Your task to perform on an android device: What's on the menu at Papa Murphy's? Image 0: 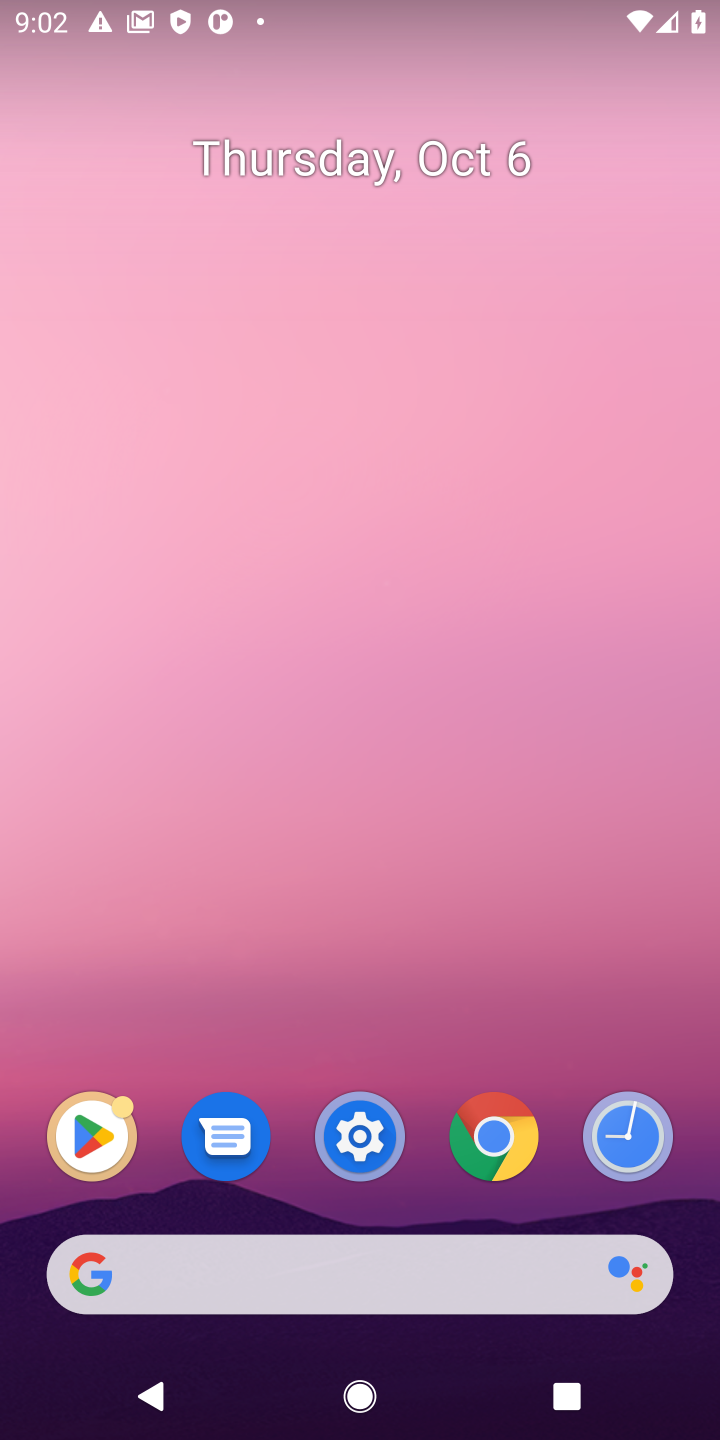
Step 0: click (80, 1259)
Your task to perform on an android device: What's on the menu at Papa Murphy's? Image 1: 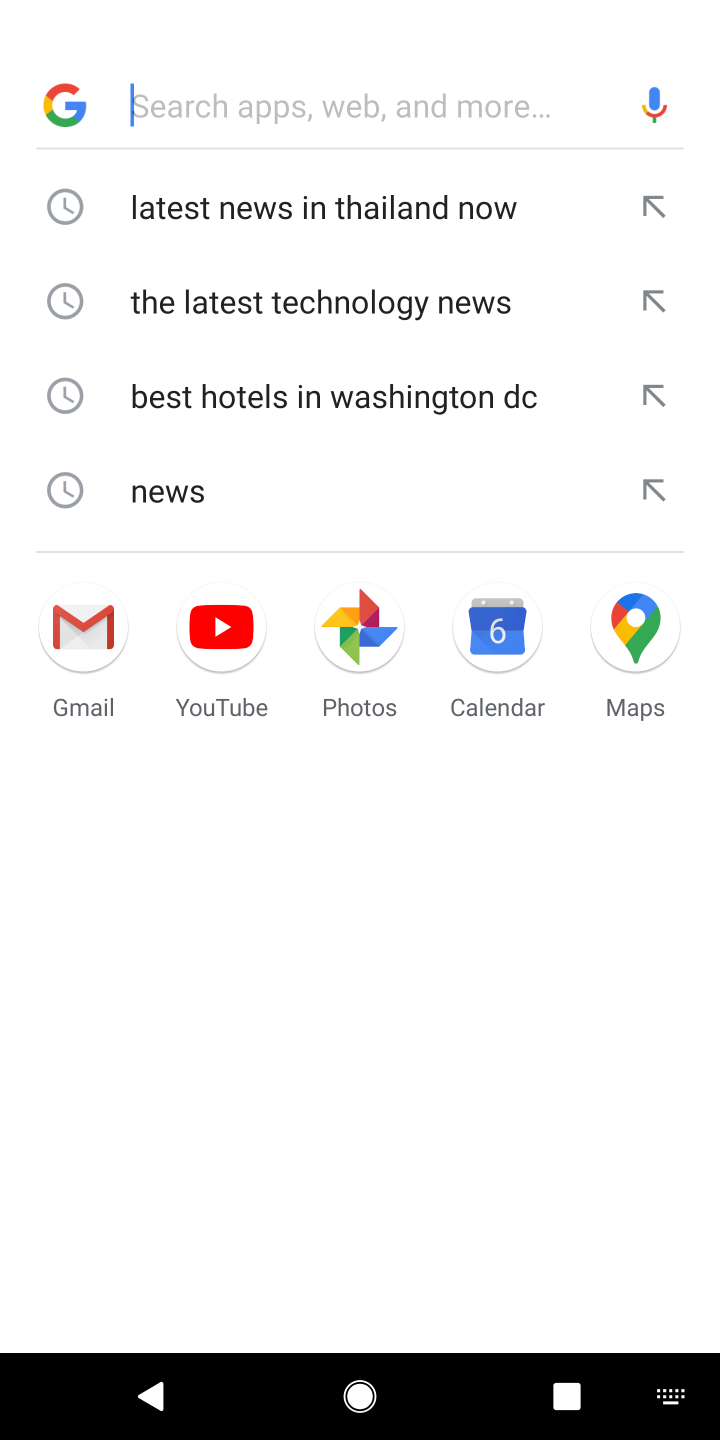
Step 1: click (294, 110)
Your task to perform on an android device: What's on the menu at Papa Murphy's? Image 2: 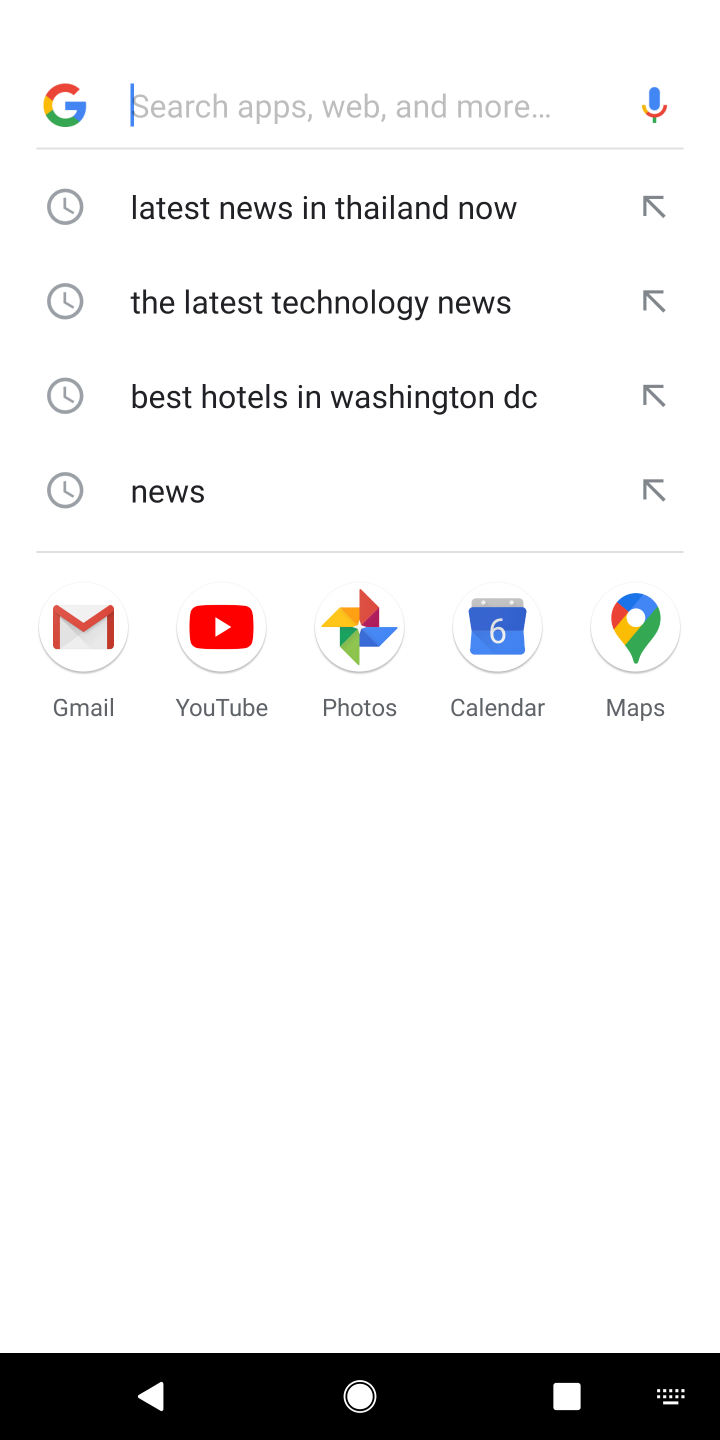
Step 2: type "What's on the menu at Papa Murphy's?"
Your task to perform on an android device: What's on the menu at Papa Murphy's? Image 3: 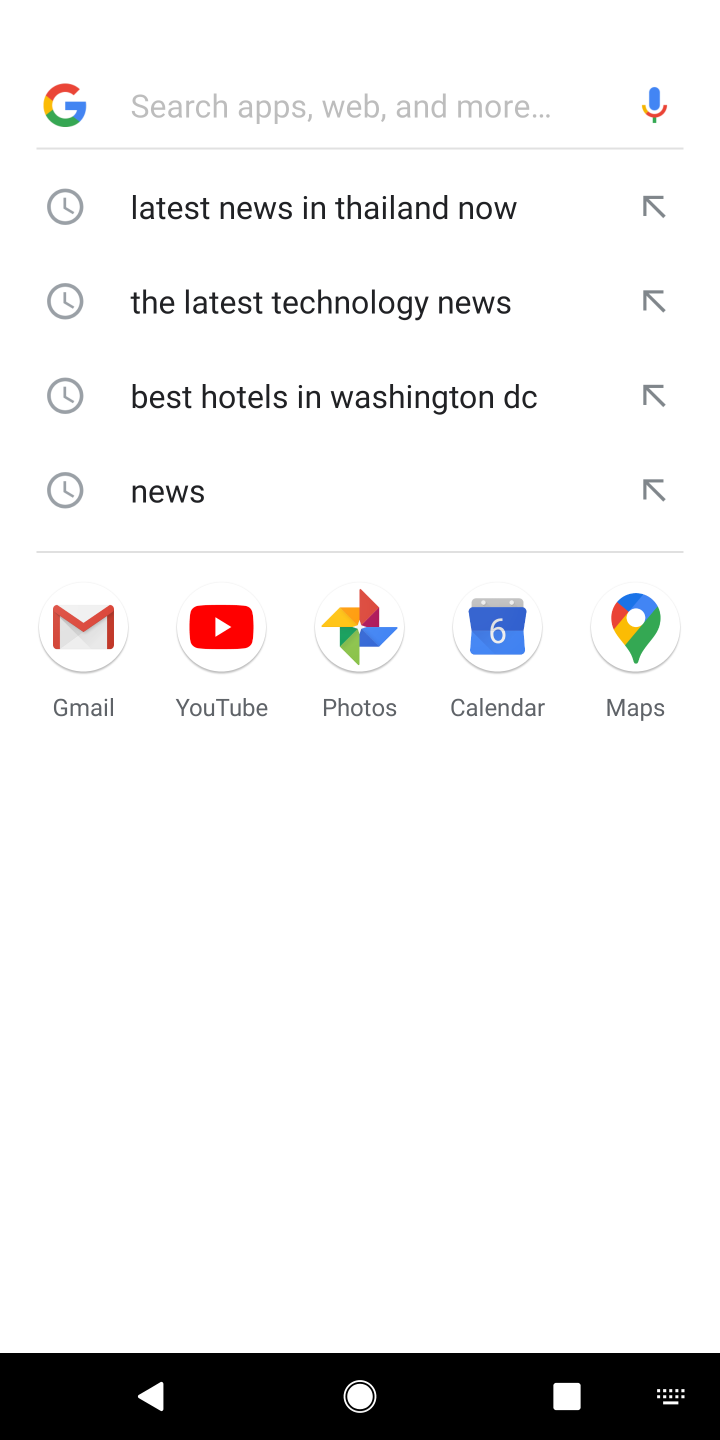
Step 3: click (419, 123)
Your task to perform on an android device: What's on the menu at Papa Murphy's? Image 4: 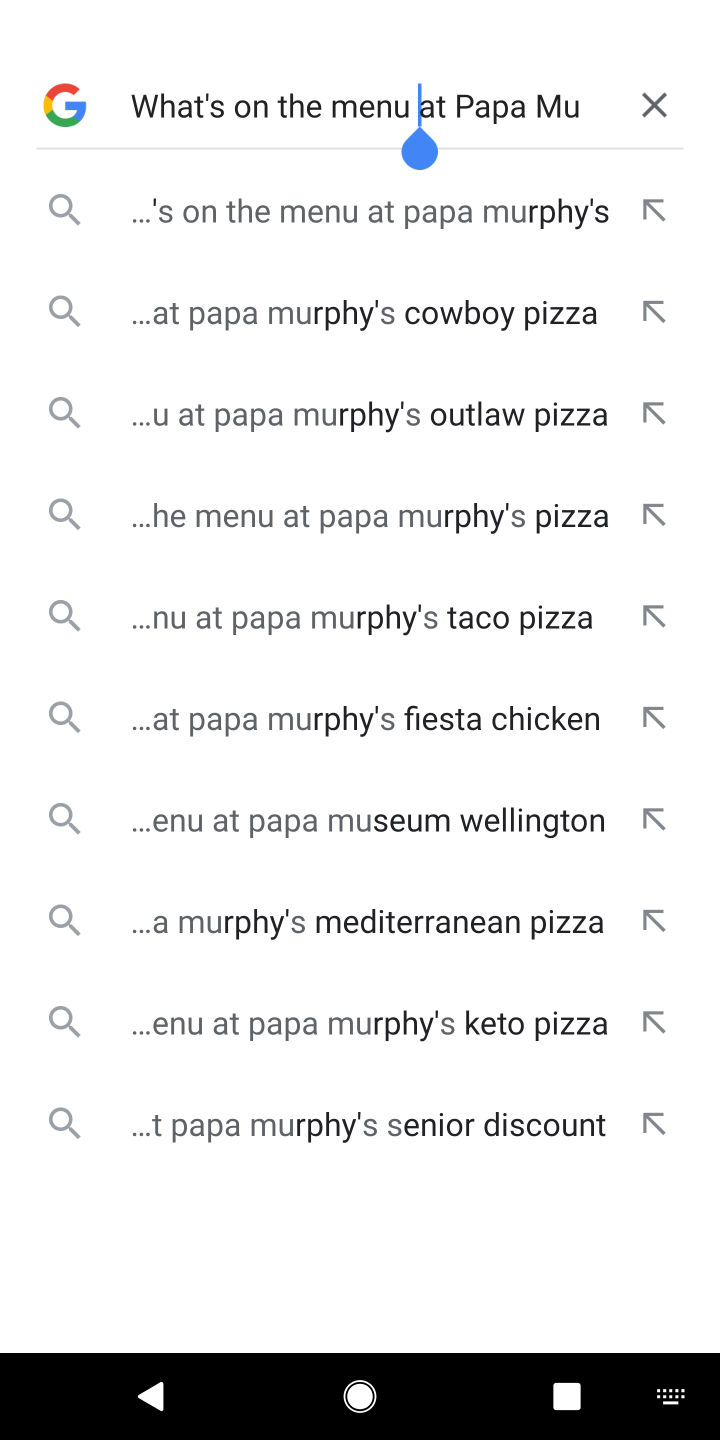
Step 4: press enter
Your task to perform on an android device: What's on the menu at Papa Murphy's? Image 5: 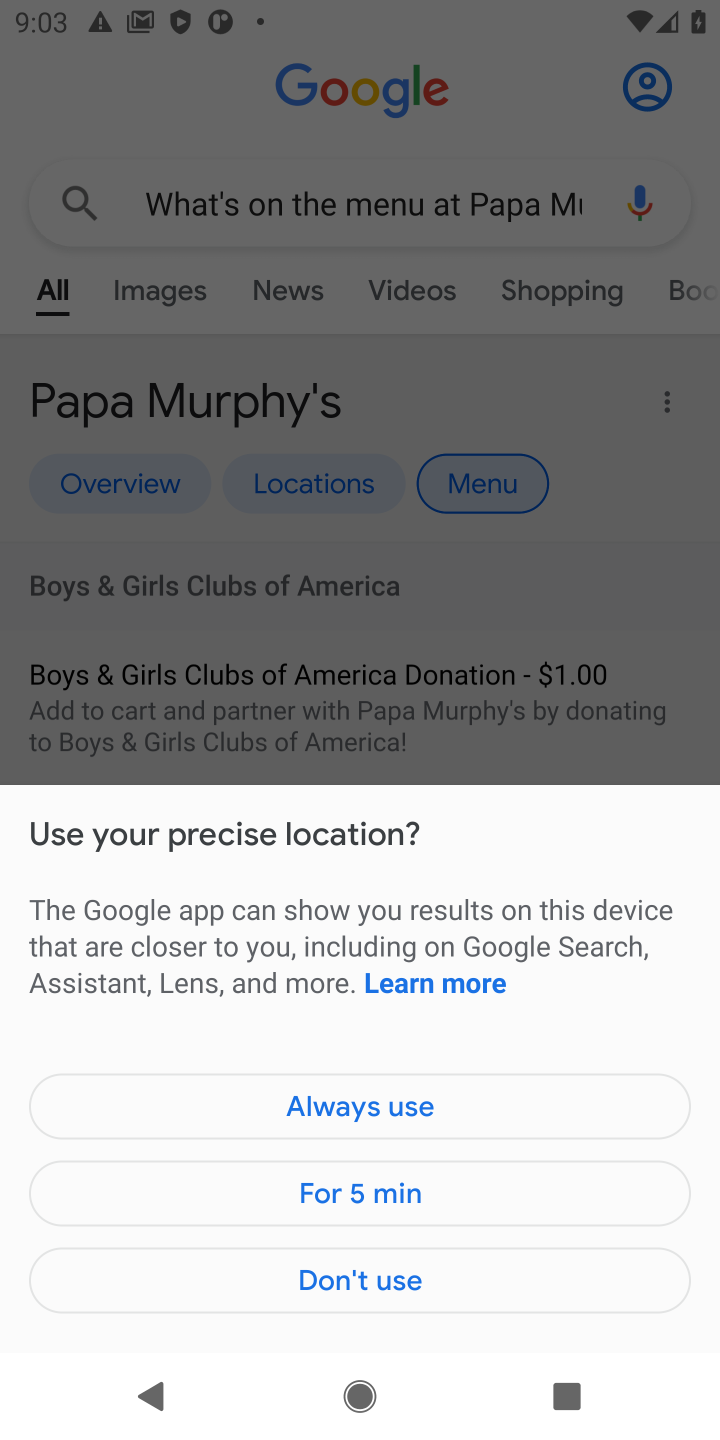
Step 5: drag from (567, 1058) to (502, 710)
Your task to perform on an android device: What's on the menu at Papa Murphy's? Image 6: 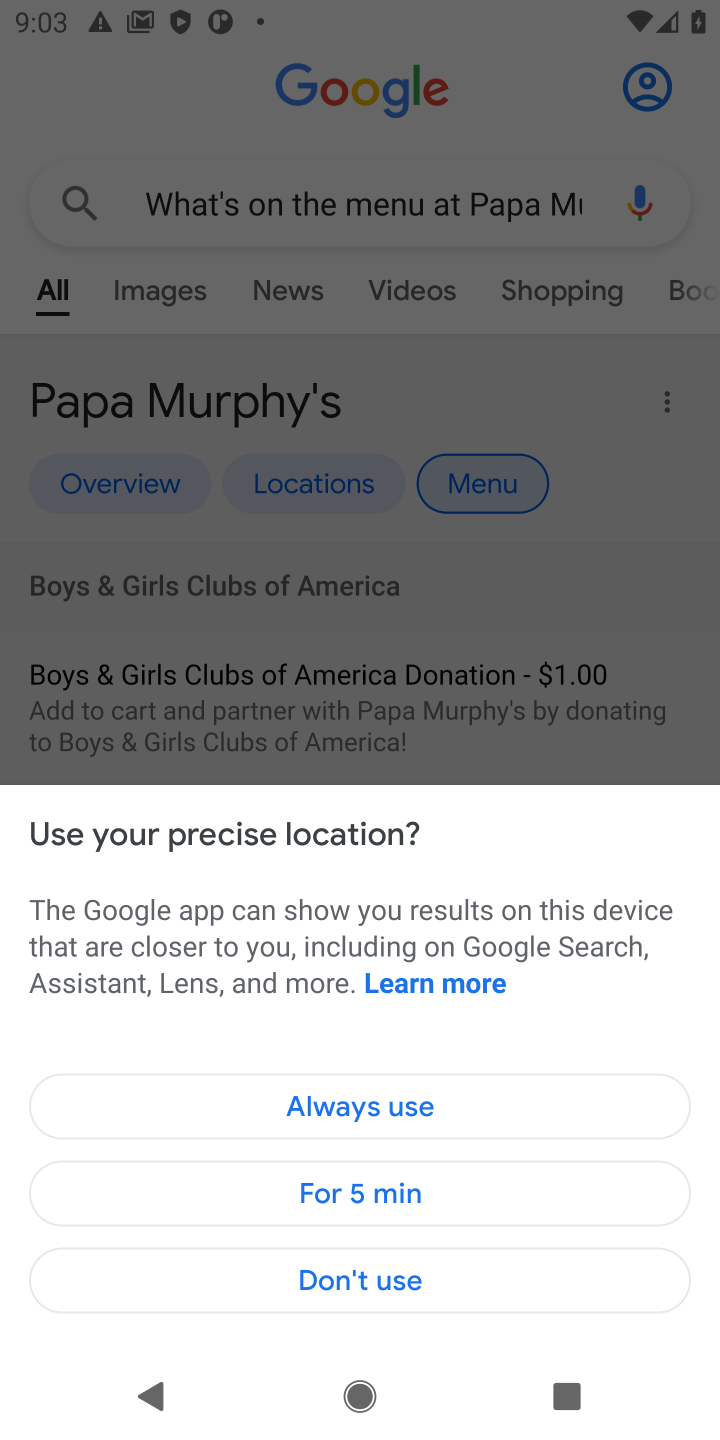
Step 6: click (621, 503)
Your task to perform on an android device: What's on the menu at Papa Murphy's? Image 7: 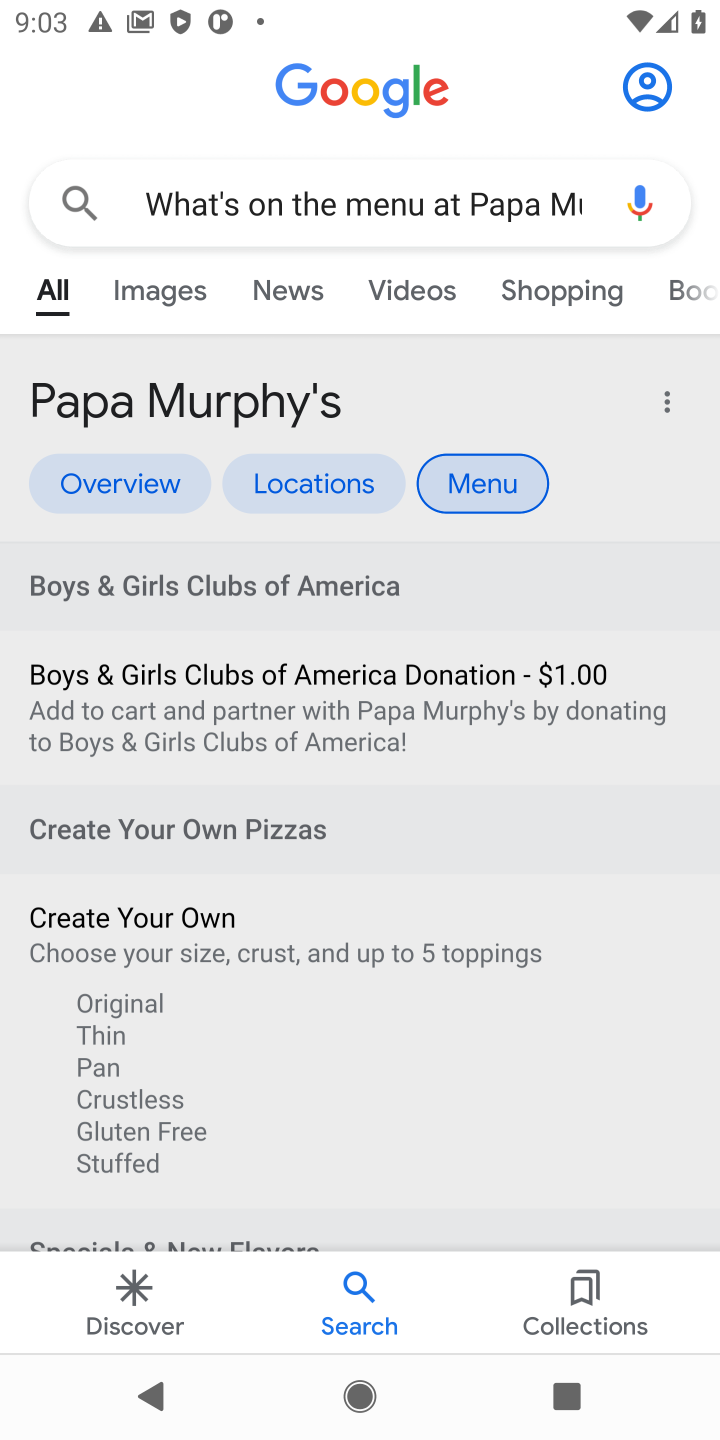
Step 7: drag from (616, 722) to (620, 163)
Your task to perform on an android device: What's on the menu at Papa Murphy's? Image 8: 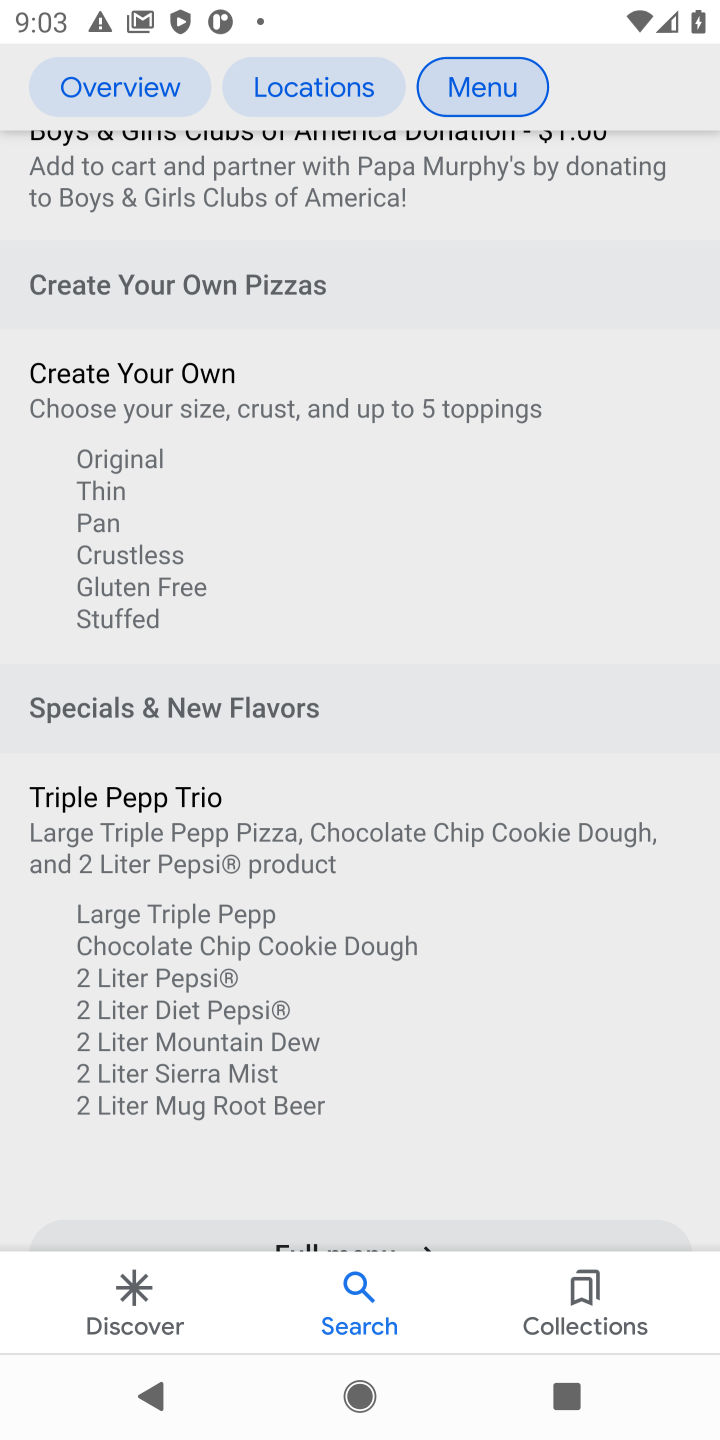
Step 8: drag from (612, 1132) to (544, 319)
Your task to perform on an android device: What's on the menu at Papa Murphy's? Image 9: 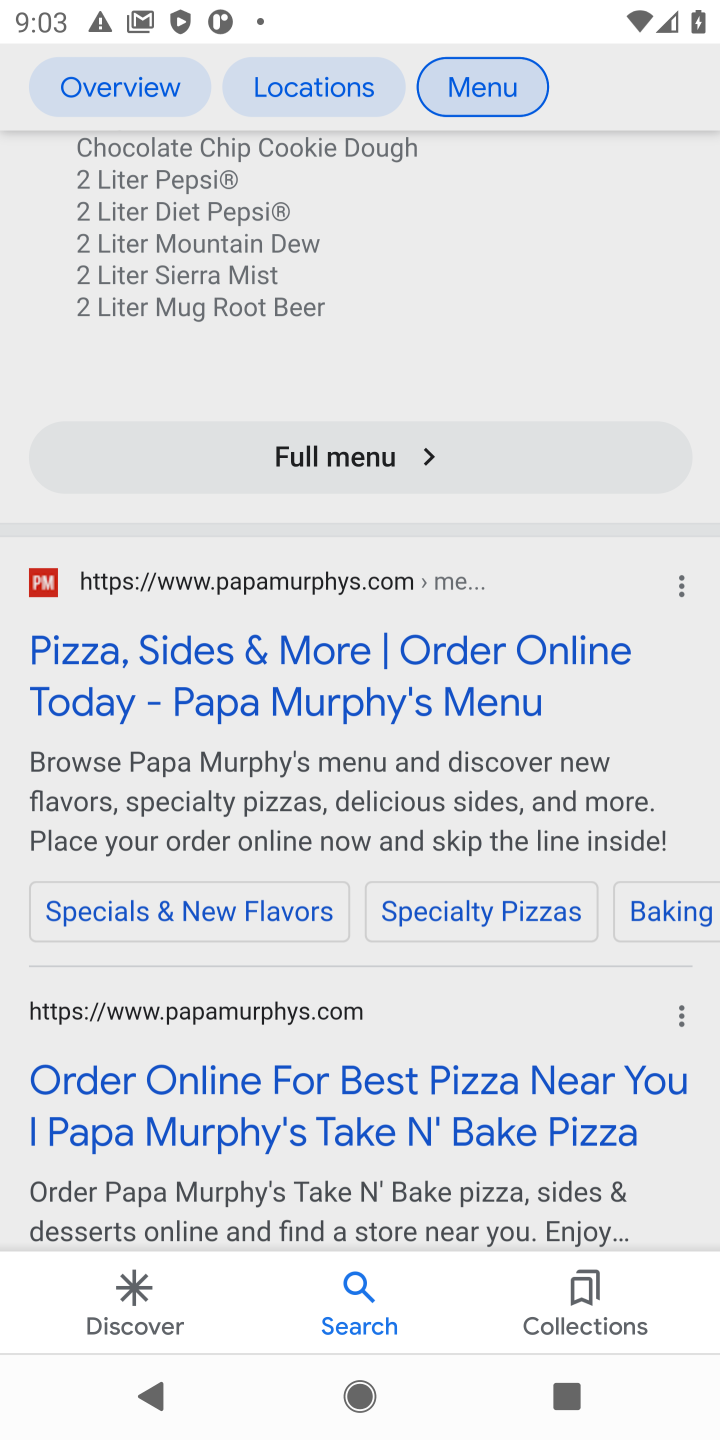
Step 9: click (383, 657)
Your task to perform on an android device: What's on the menu at Papa Murphy's? Image 10: 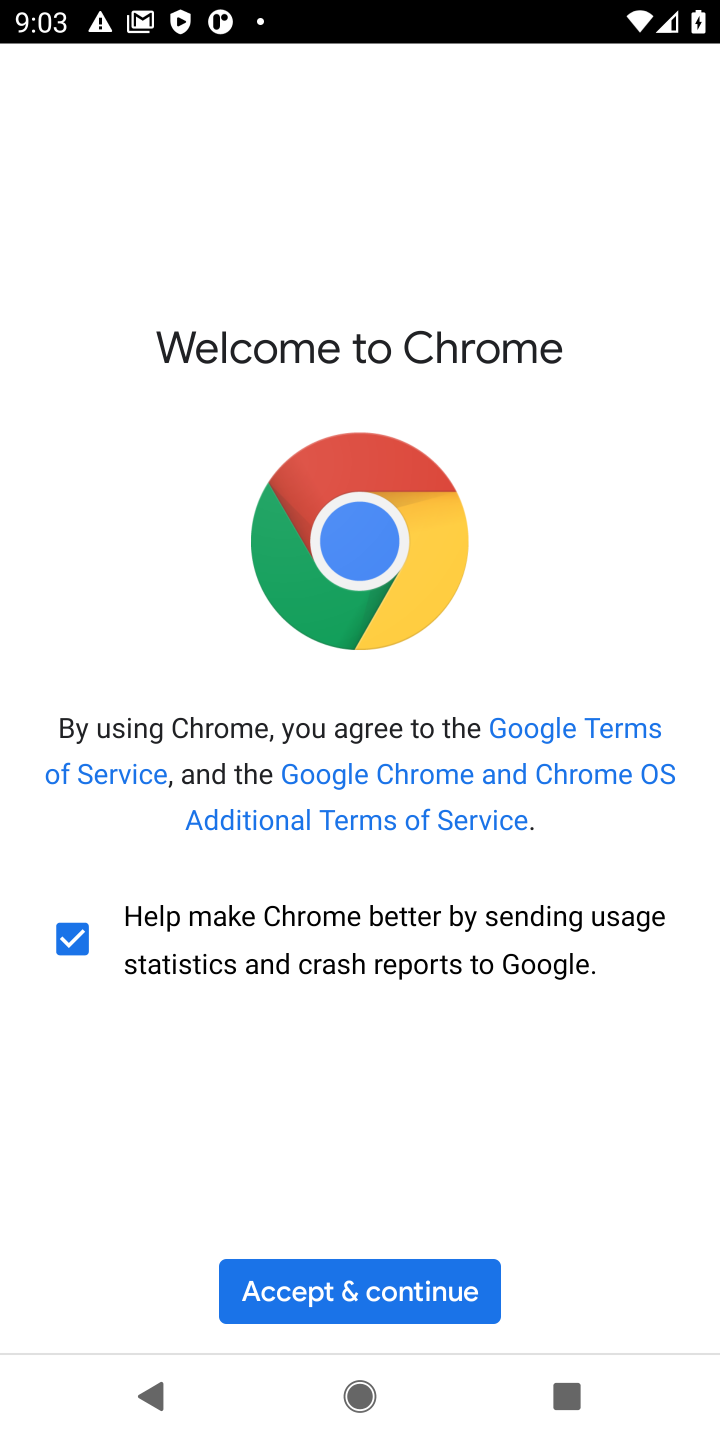
Step 10: click (439, 1305)
Your task to perform on an android device: What's on the menu at Papa Murphy's? Image 11: 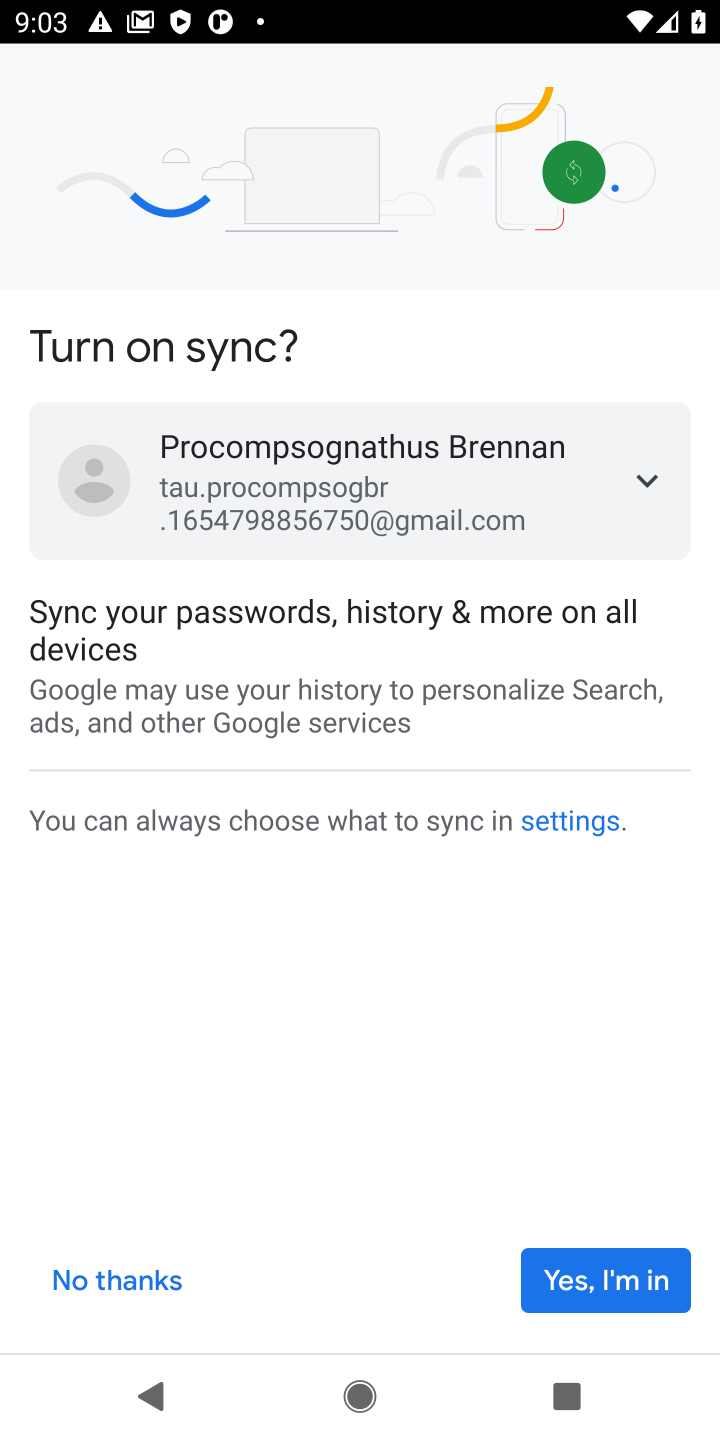
Step 11: click (571, 1294)
Your task to perform on an android device: What's on the menu at Papa Murphy's? Image 12: 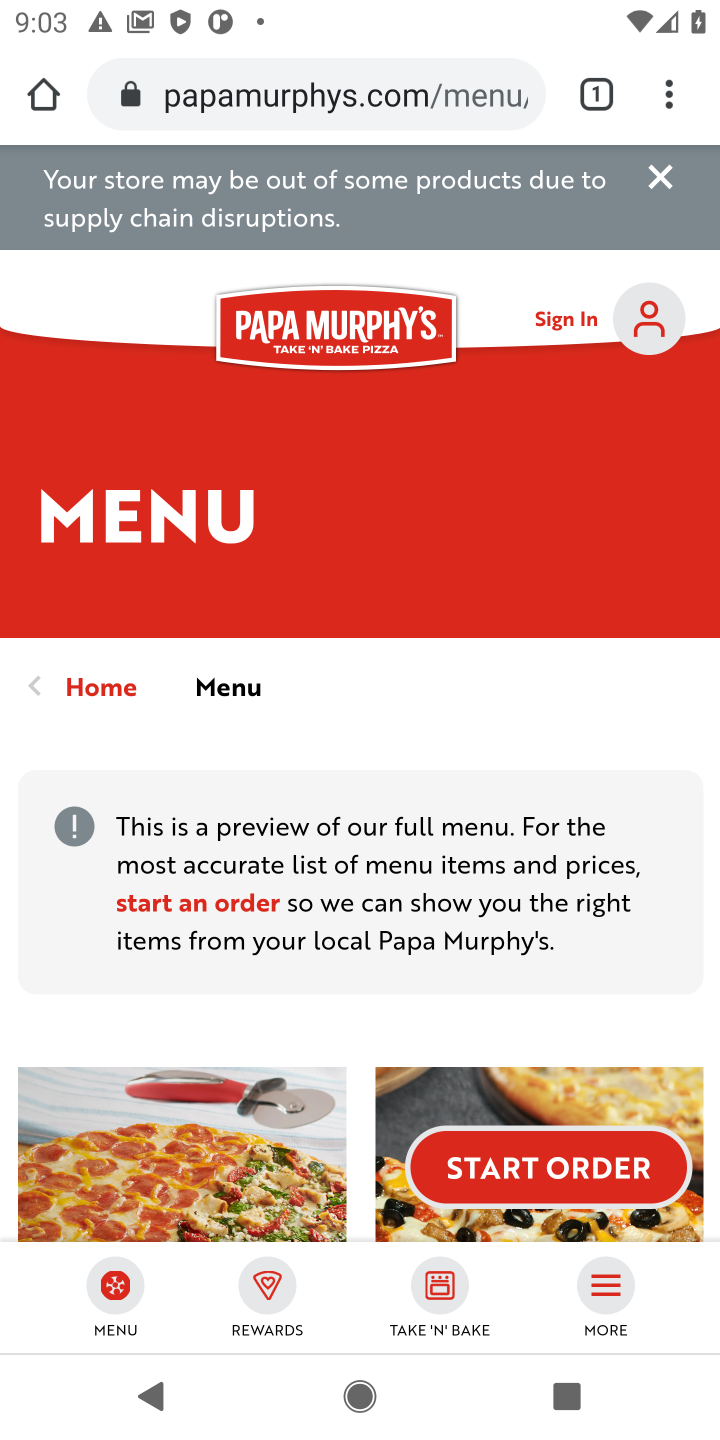
Step 12: task complete